Your task to perform on an android device: Turn on the flashlight Image 0: 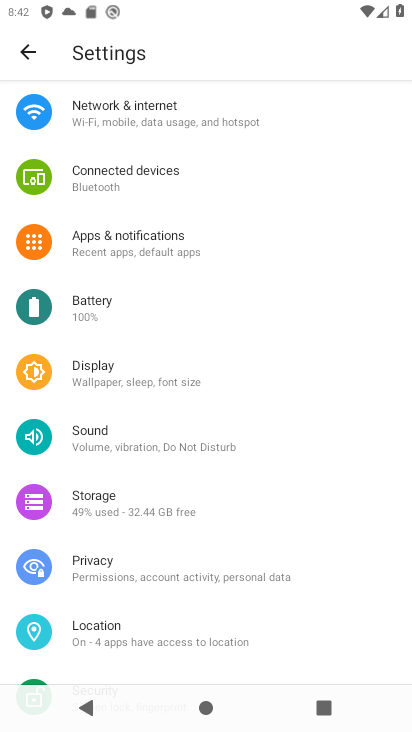
Step 0: drag from (261, 483) to (197, 160)
Your task to perform on an android device: Turn on the flashlight Image 1: 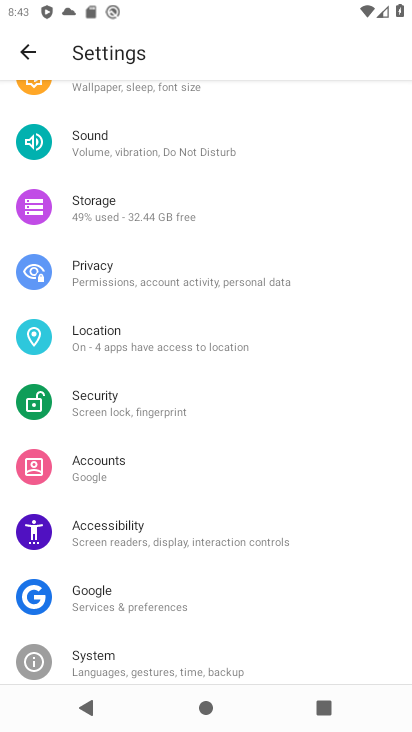
Step 1: task complete